Your task to perform on an android device: make emails show in primary in the gmail app Image 0: 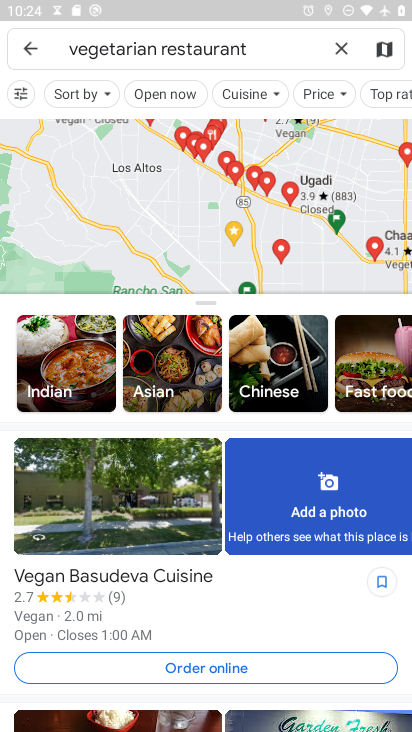
Step 0: press home button
Your task to perform on an android device: make emails show in primary in the gmail app Image 1: 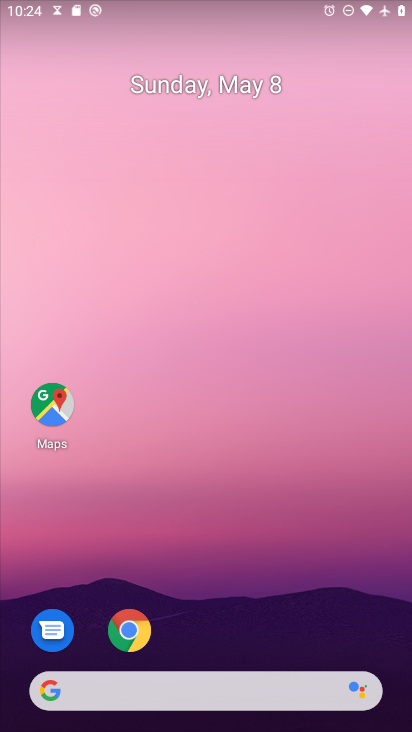
Step 1: drag from (236, 694) to (371, 124)
Your task to perform on an android device: make emails show in primary in the gmail app Image 2: 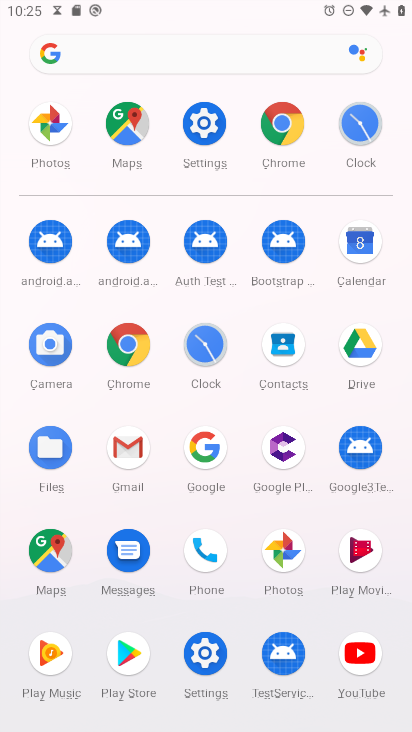
Step 2: click (125, 467)
Your task to perform on an android device: make emails show in primary in the gmail app Image 3: 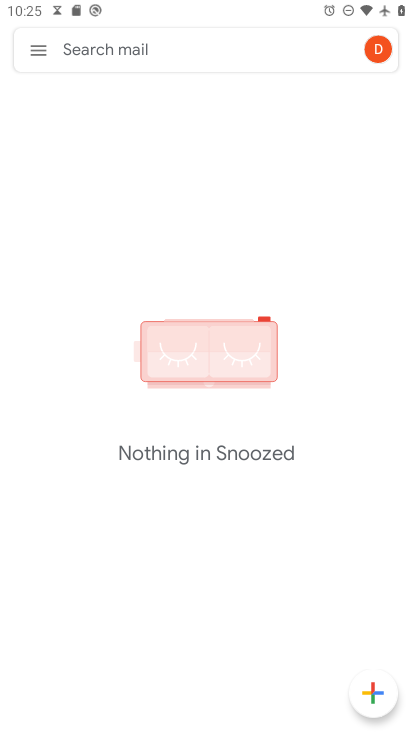
Step 3: click (51, 52)
Your task to perform on an android device: make emails show in primary in the gmail app Image 4: 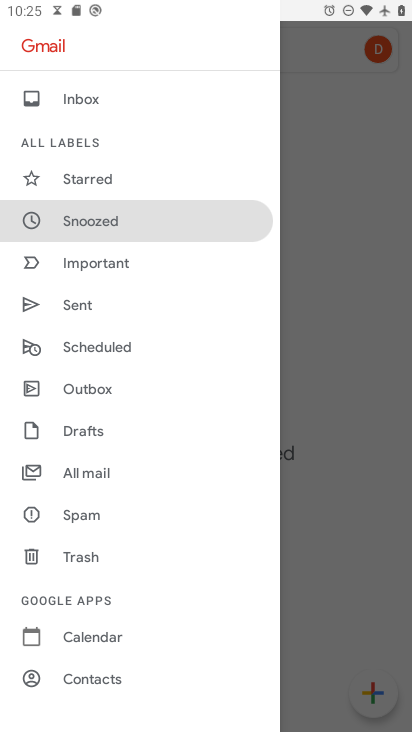
Step 4: drag from (167, 665) to (289, 202)
Your task to perform on an android device: make emails show in primary in the gmail app Image 5: 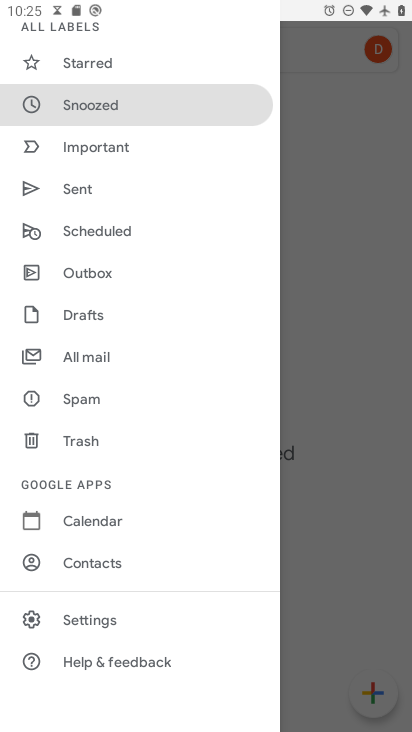
Step 5: click (95, 627)
Your task to perform on an android device: make emails show in primary in the gmail app Image 6: 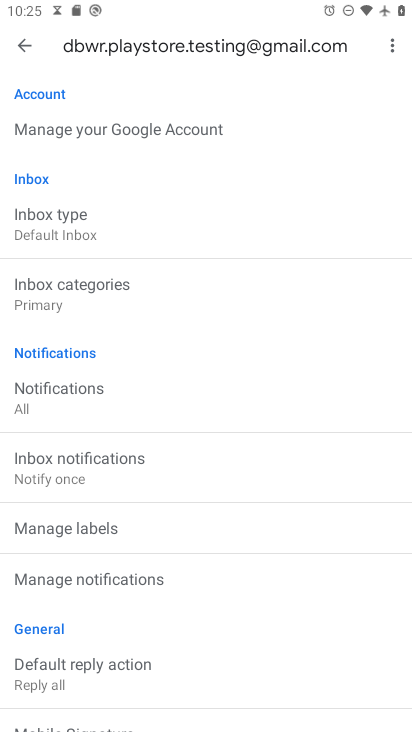
Step 6: click (95, 305)
Your task to perform on an android device: make emails show in primary in the gmail app Image 7: 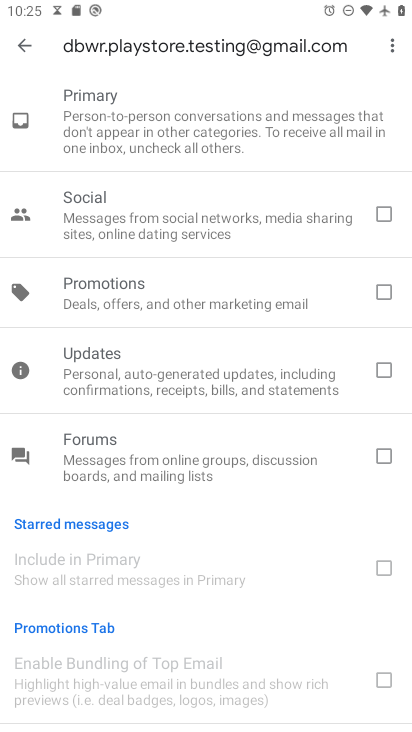
Step 7: click (22, 37)
Your task to perform on an android device: make emails show in primary in the gmail app Image 8: 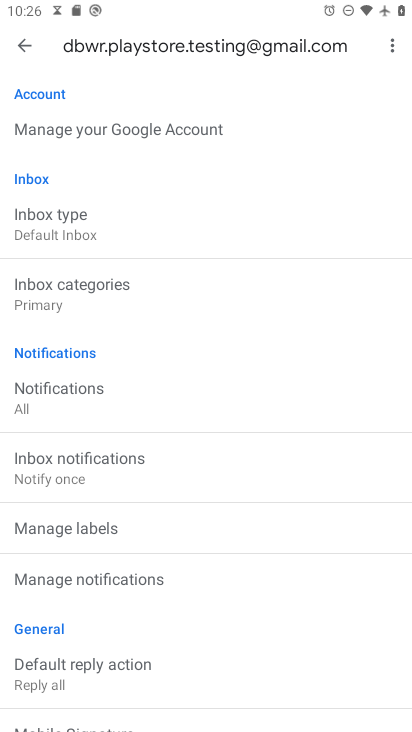
Step 8: task complete